Your task to perform on an android device: Go to CNN.com Image 0: 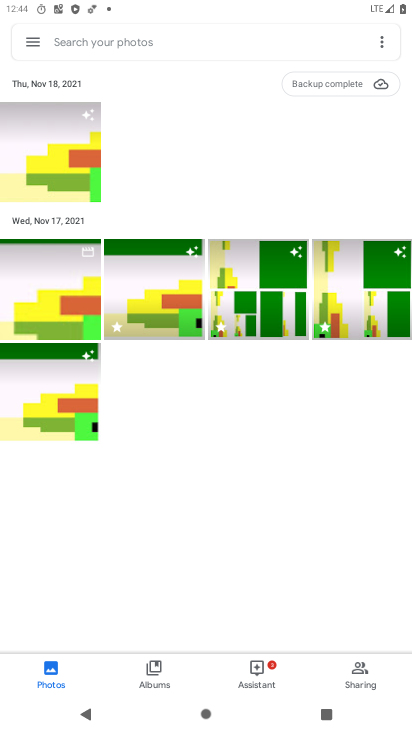
Step 0: task complete